Your task to perform on an android device: Go to Amazon Image 0: 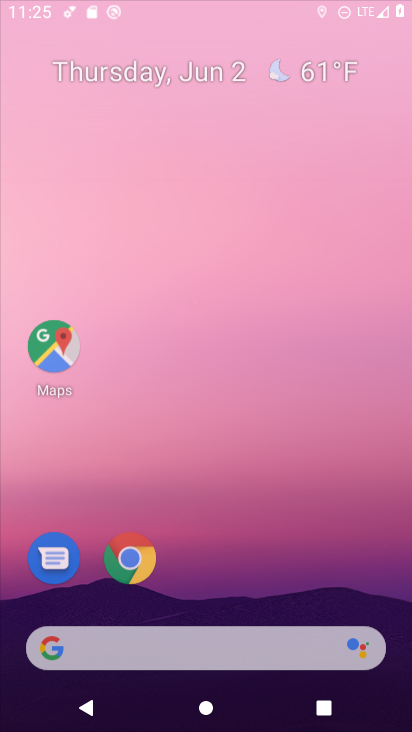
Step 0: drag from (247, 421) to (214, 163)
Your task to perform on an android device: Go to Amazon Image 1: 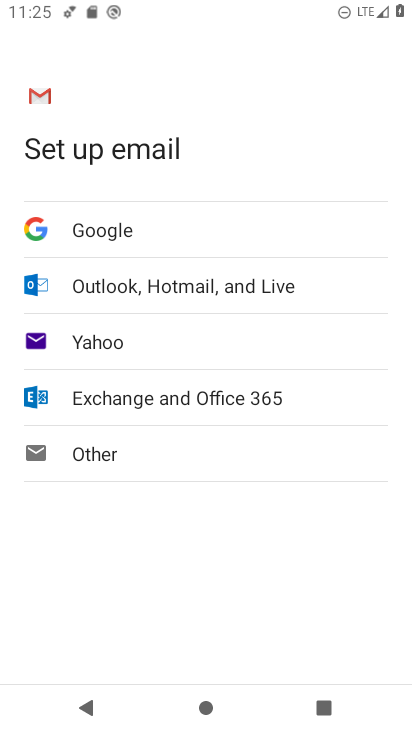
Step 1: press home button
Your task to perform on an android device: Go to Amazon Image 2: 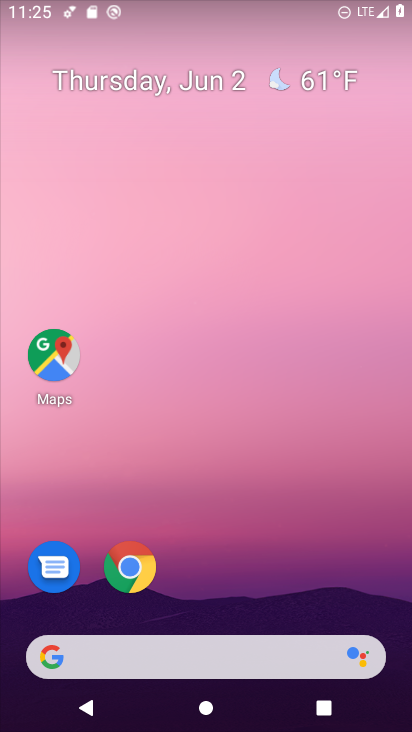
Step 2: click (134, 568)
Your task to perform on an android device: Go to Amazon Image 3: 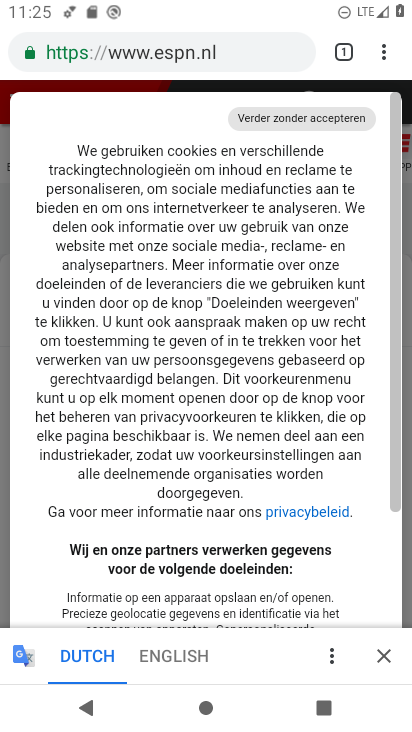
Step 3: click (236, 39)
Your task to perform on an android device: Go to Amazon Image 4: 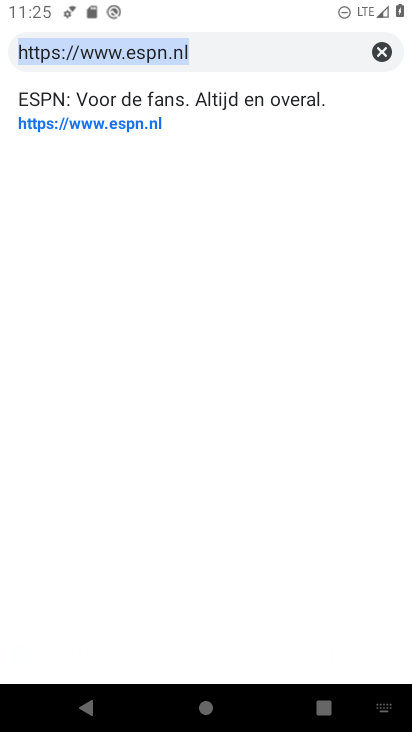
Step 4: type "amazon"
Your task to perform on an android device: Go to Amazon Image 5: 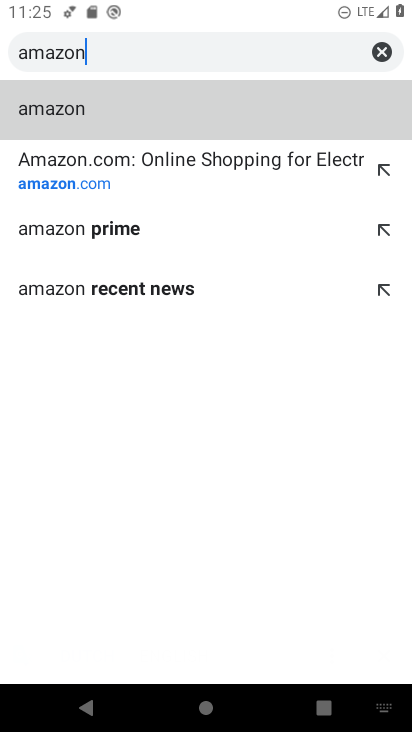
Step 5: click (93, 179)
Your task to perform on an android device: Go to Amazon Image 6: 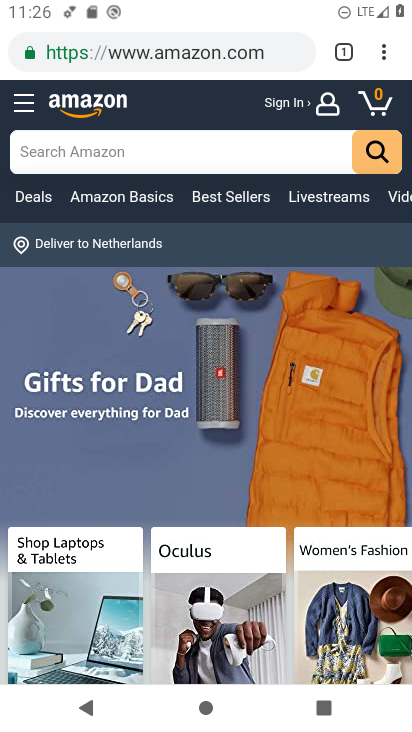
Step 6: task complete